Your task to perform on an android device: Open notification settings Image 0: 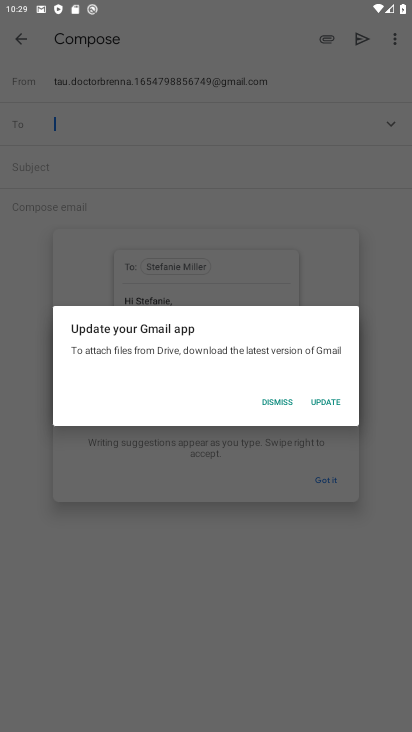
Step 0: press home button
Your task to perform on an android device: Open notification settings Image 1: 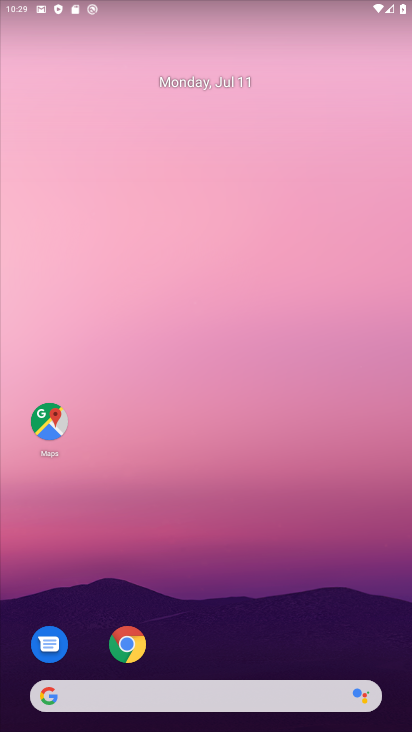
Step 1: drag from (245, 610) to (223, 158)
Your task to perform on an android device: Open notification settings Image 2: 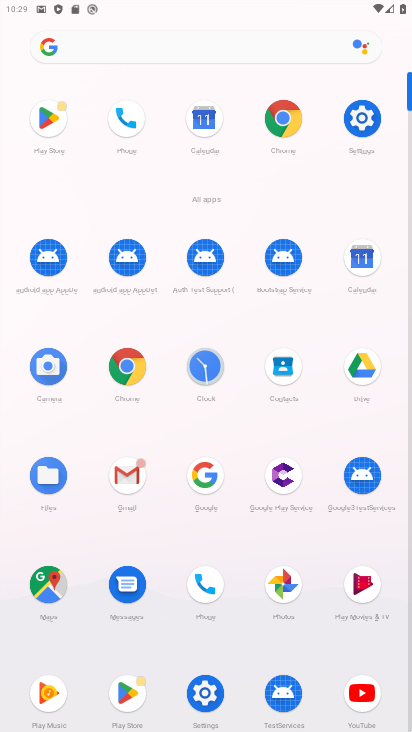
Step 2: click (351, 106)
Your task to perform on an android device: Open notification settings Image 3: 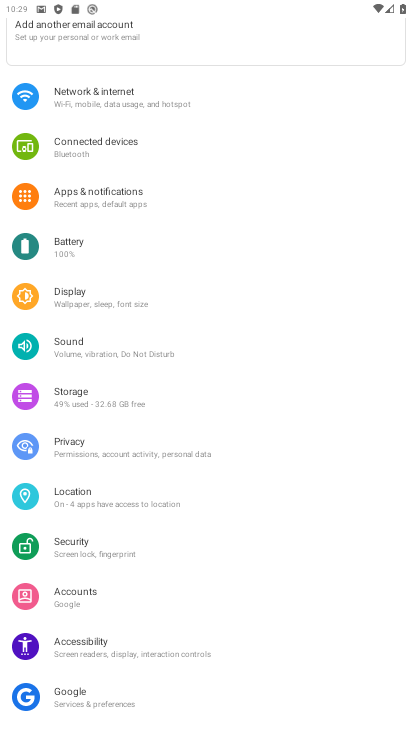
Step 3: click (96, 204)
Your task to perform on an android device: Open notification settings Image 4: 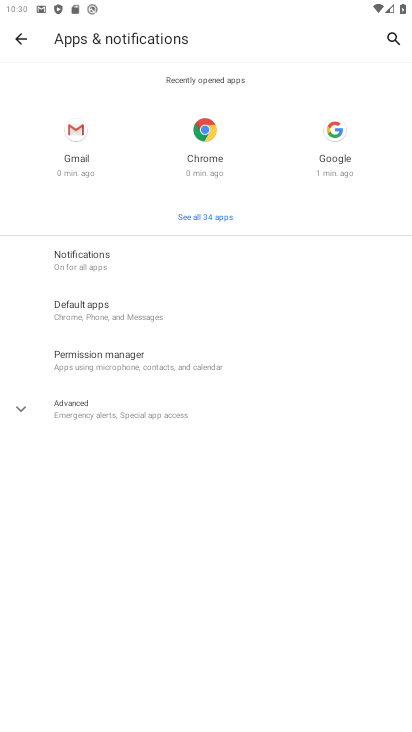
Step 4: task complete